Your task to perform on an android device: Open settings on Google Maps Image 0: 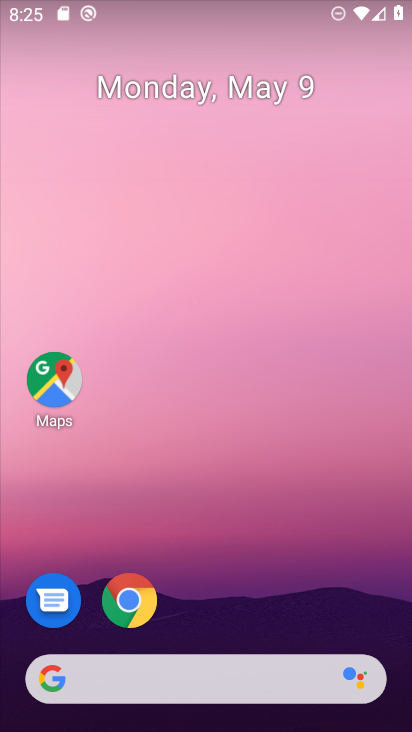
Step 0: drag from (313, 590) to (285, 20)
Your task to perform on an android device: Open settings on Google Maps Image 1: 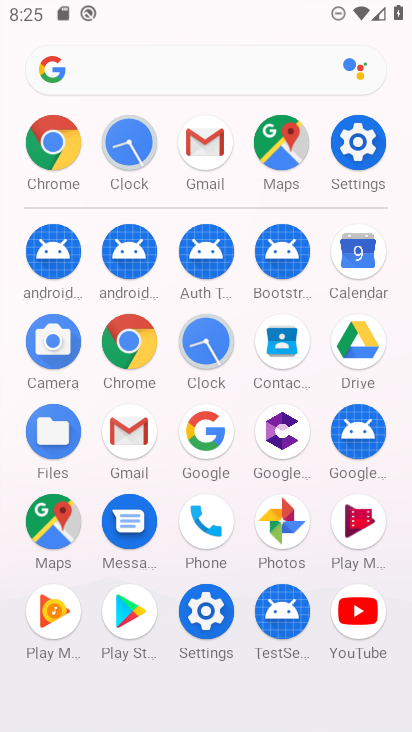
Step 1: click (49, 524)
Your task to perform on an android device: Open settings on Google Maps Image 2: 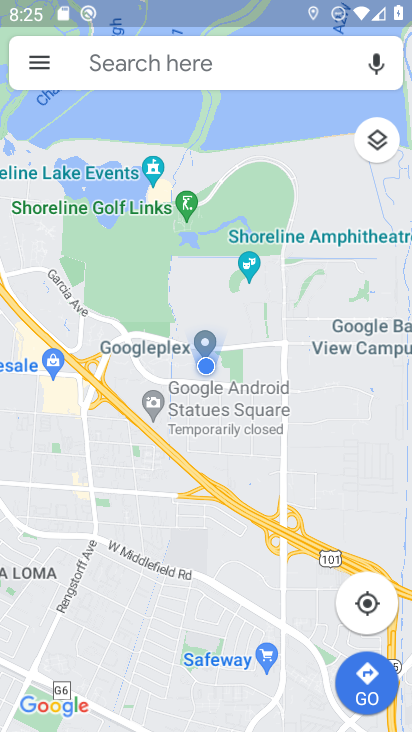
Step 2: task complete